Your task to perform on an android device: Open the calendar app, open the side menu, and click the "Day" option Image 0: 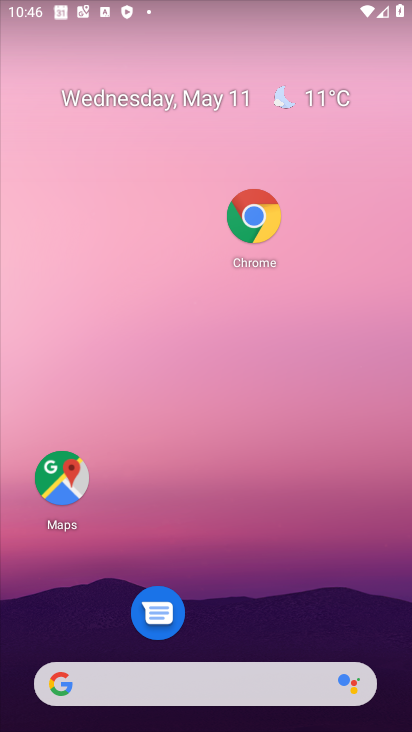
Step 0: drag from (263, 629) to (172, 164)
Your task to perform on an android device: Open the calendar app, open the side menu, and click the "Day" option Image 1: 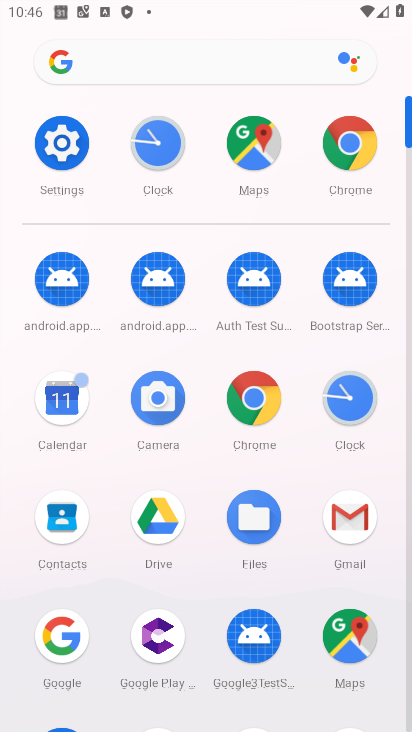
Step 1: click (64, 407)
Your task to perform on an android device: Open the calendar app, open the side menu, and click the "Day" option Image 2: 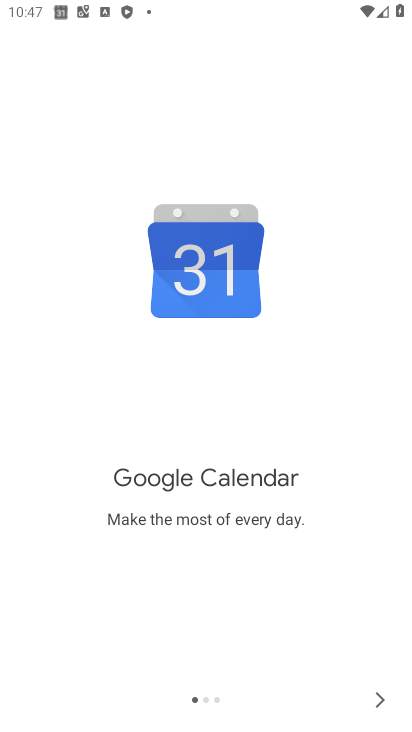
Step 2: click (364, 699)
Your task to perform on an android device: Open the calendar app, open the side menu, and click the "Day" option Image 3: 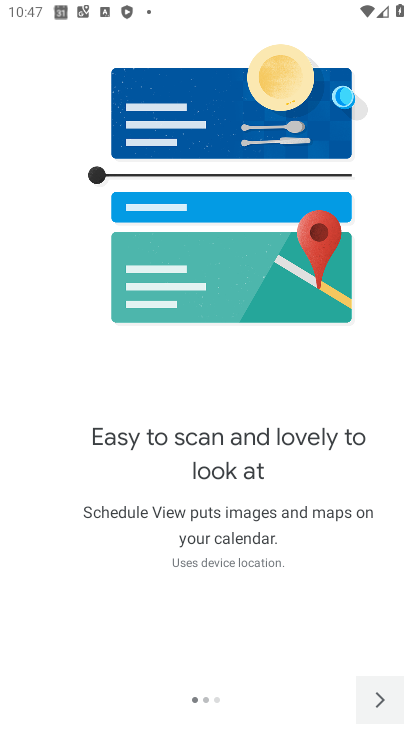
Step 3: click (377, 695)
Your task to perform on an android device: Open the calendar app, open the side menu, and click the "Day" option Image 4: 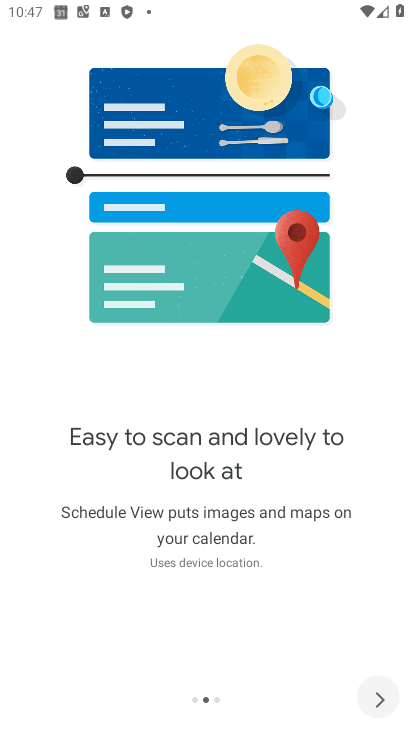
Step 4: click (377, 693)
Your task to perform on an android device: Open the calendar app, open the side menu, and click the "Day" option Image 5: 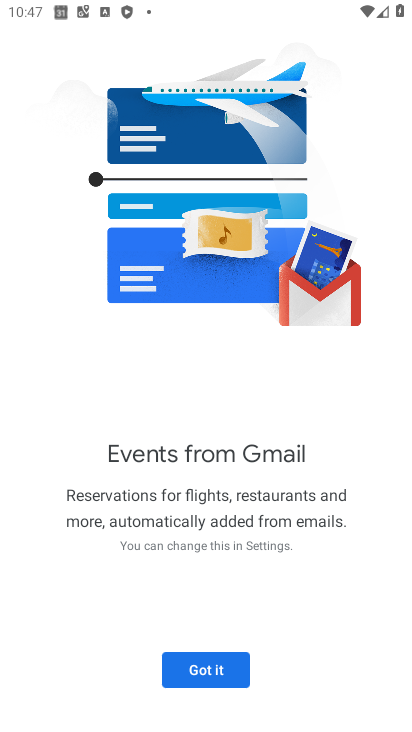
Step 5: click (376, 690)
Your task to perform on an android device: Open the calendar app, open the side menu, and click the "Day" option Image 6: 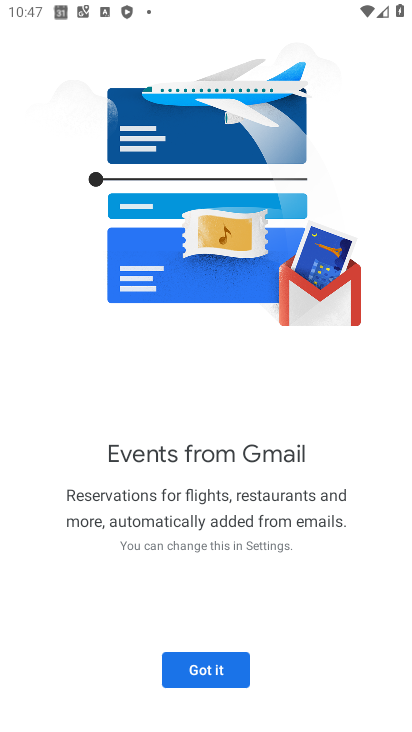
Step 6: click (208, 679)
Your task to perform on an android device: Open the calendar app, open the side menu, and click the "Day" option Image 7: 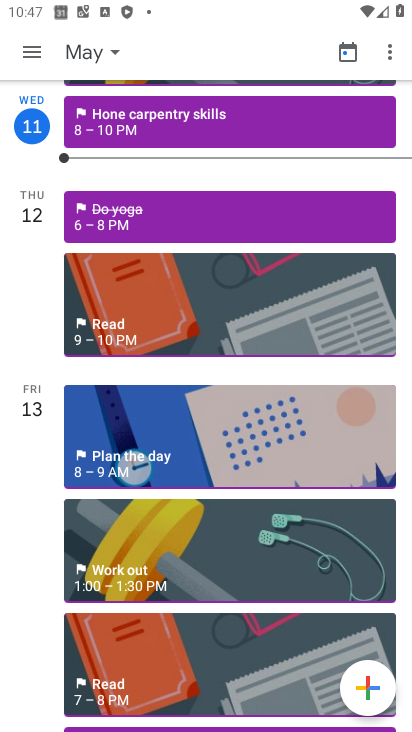
Step 7: click (30, 67)
Your task to perform on an android device: Open the calendar app, open the side menu, and click the "Day" option Image 8: 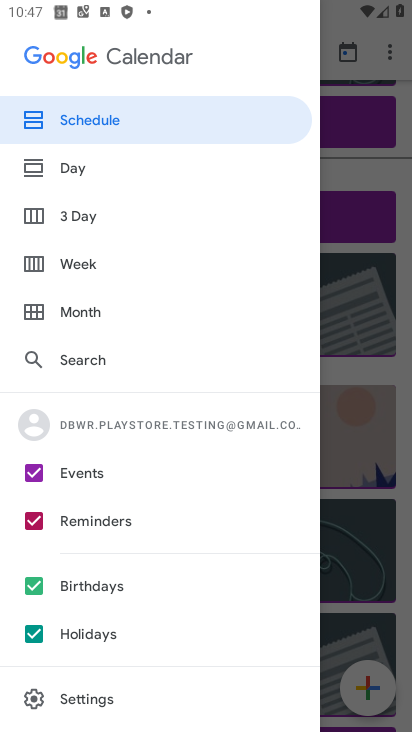
Step 8: click (85, 168)
Your task to perform on an android device: Open the calendar app, open the side menu, and click the "Day" option Image 9: 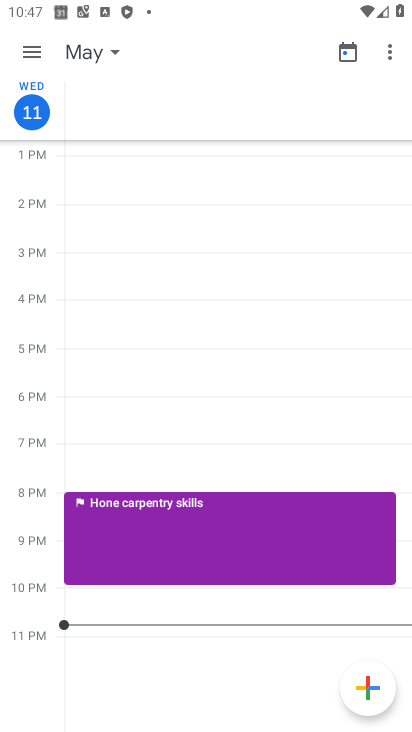
Step 9: task complete